Your task to perform on an android device: Clear all items from cart on walmart.com. Search for "acer nitro" on walmart.com, select the first entry, add it to the cart, then select checkout. Image 0: 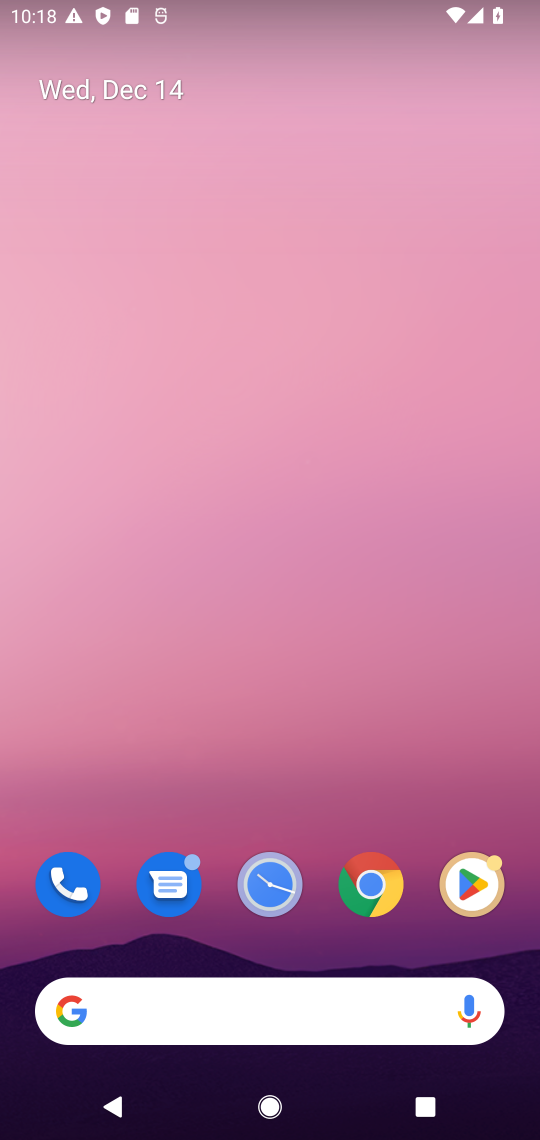
Step 0: click (387, 881)
Your task to perform on an android device: Clear all items from cart on walmart.com. Search for "acer nitro" on walmart.com, select the first entry, add it to the cart, then select checkout. Image 1: 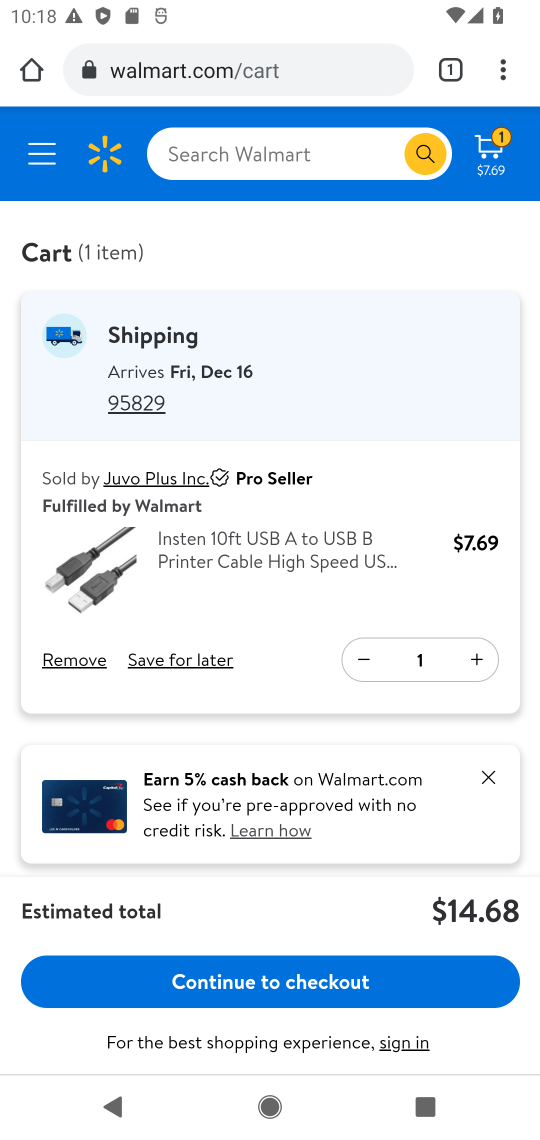
Step 1: click (330, 149)
Your task to perform on an android device: Clear all items from cart on walmart.com. Search for "acer nitro" on walmart.com, select the first entry, add it to the cart, then select checkout. Image 2: 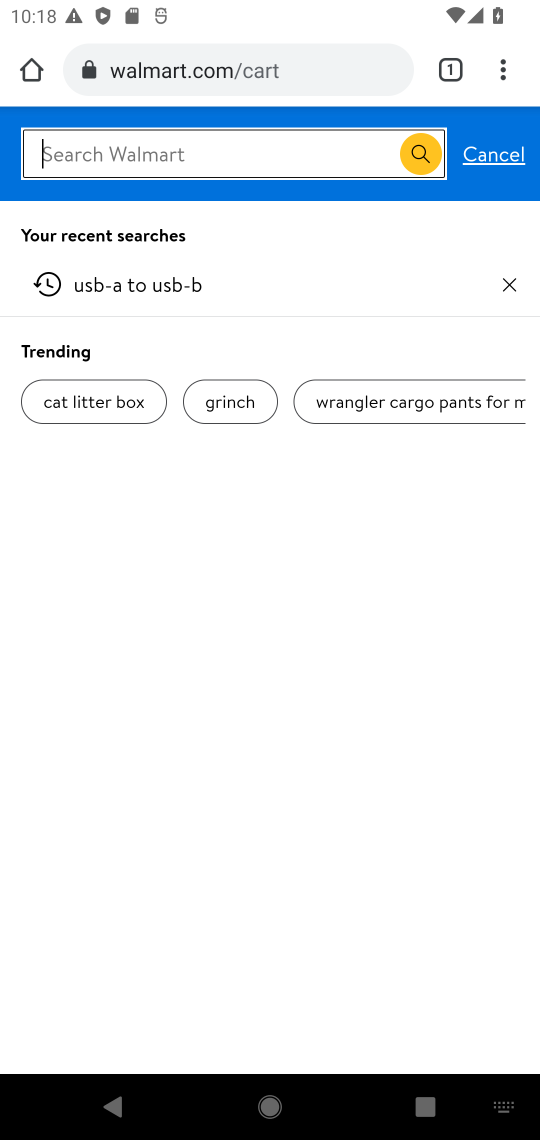
Step 2: press enter
Your task to perform on an android device: Clear all items from cart on walmart.com. Search for "acer nitro" on walmart.com, select the first entry, add it to the cart, then select checkout. Image 3: 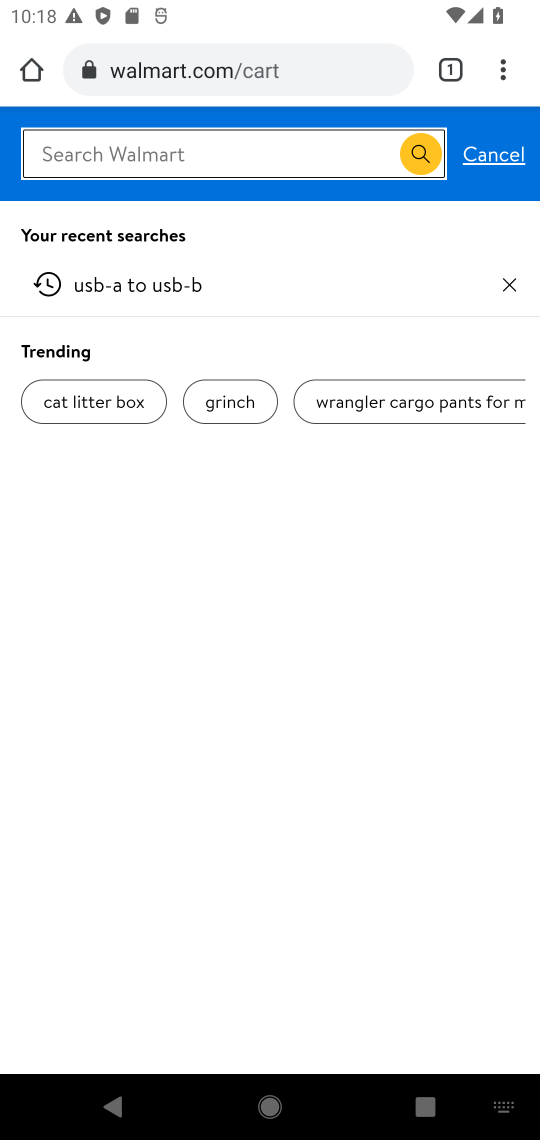
Step 3: type "acer nitro"
Your task to perform on an android device: Clear all items from cart on walmart.com. Search for "acer nitro" on walmart.com, select the first entry, add it to the cart, then select checkout. Image 4: 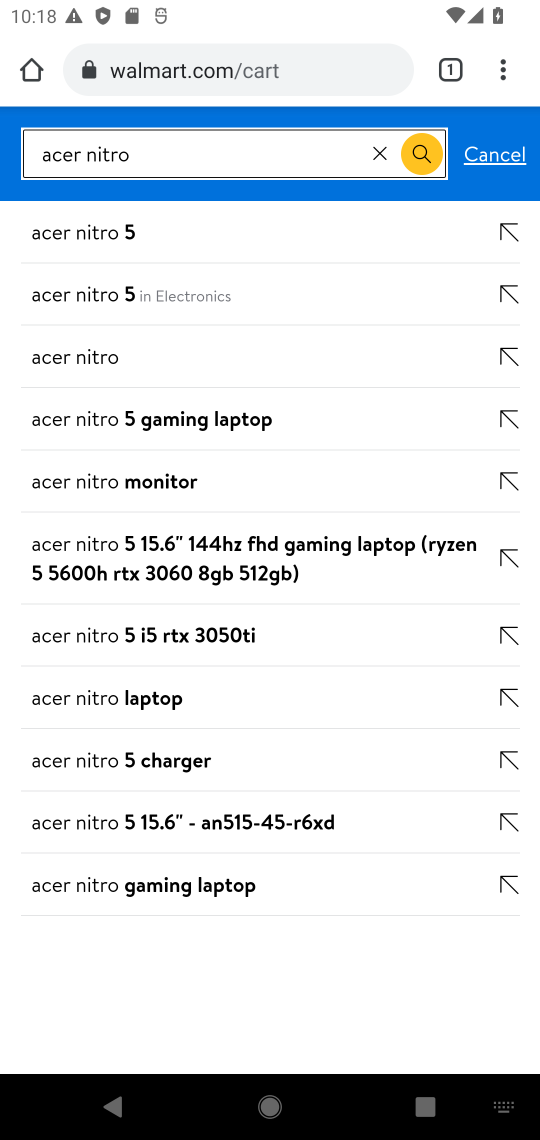
Step 4: click (94, 354)
Your task to perform on an android device: Clear all items from cart on walmart.com. Search for "acer nitro" on walmart.com, select the first entry, add it to the cart, then select checkout. Image 5: 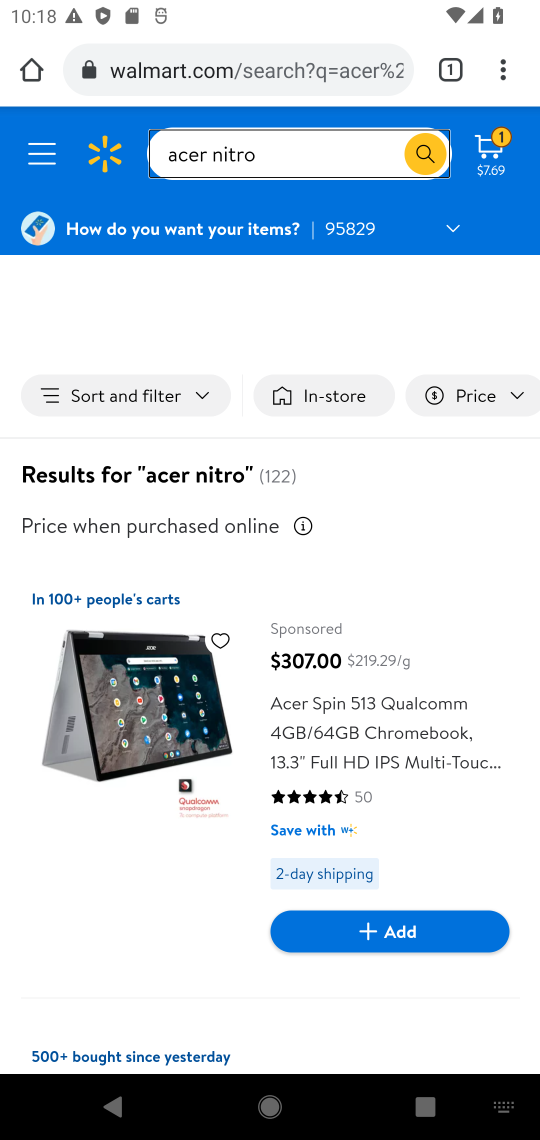
Step 5: drag from (404, 784) to (284, 328)
Your task to perform on an android device: Clear all items from cart on walmart.com. Search for "acer nitro" on walmart.com, select the first entry, add it to the cart, then select checkout. Image 6: 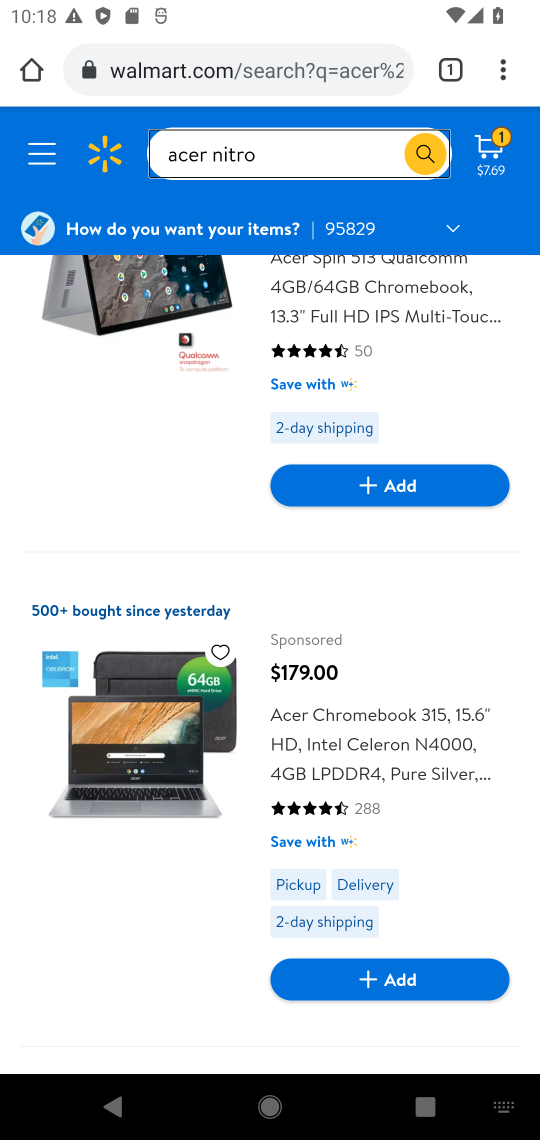
Step 6: drag from (146, 816) to (33, 365)
Your task to perform on an android device: Clear all items from cart on walmart.com. Search for "acer nitro" on walmart.com, select the first entry, add it to the cart, then select checkout. Image 7: 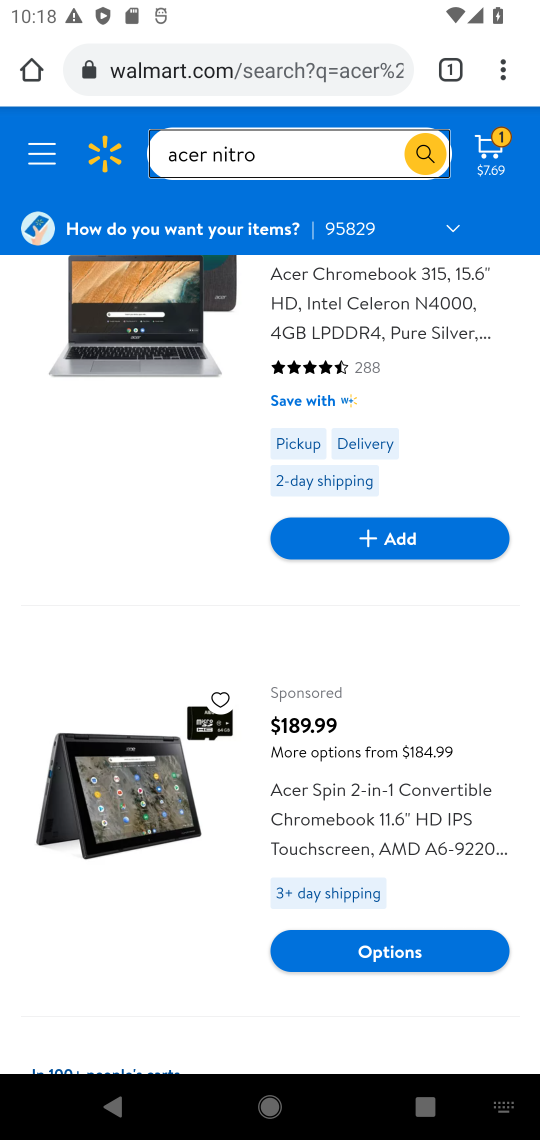
Step 7: drag from (144, 880) to (101, 339)
Your task to perform on an android device: Clear all items from cart on walmart.com. Search for "acer nitro" on walmart.com, select the first entry, add it to the cart, then select checkout. Image 8: 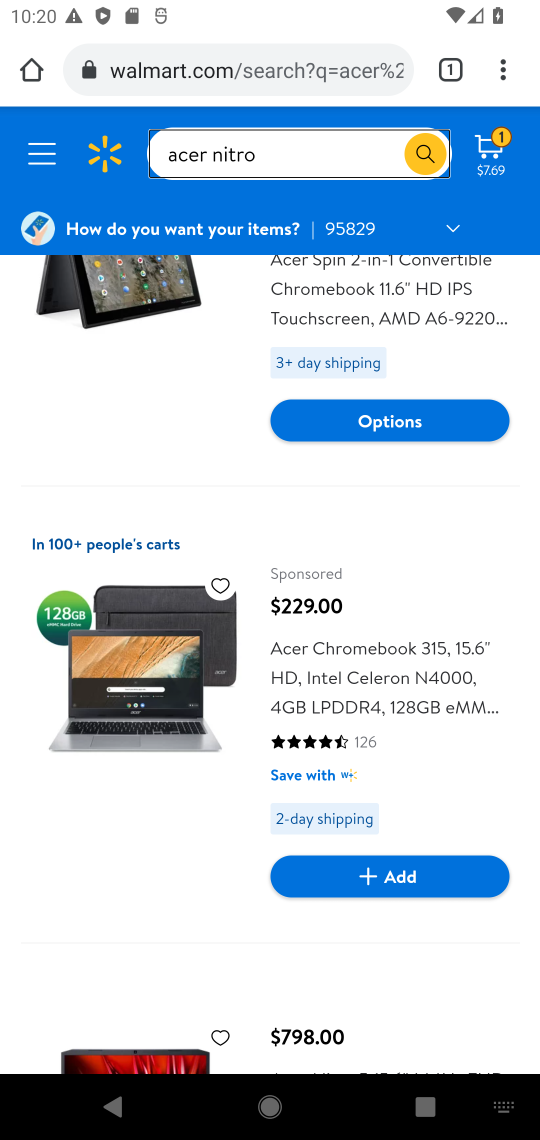
Step 8: press enter
Your task to perform on an android device: Clear all items from cart on walmart.com. Search for "acer nitro" on walmart.com, select the first entry, add it to the cart, then select checkout. Image 9: 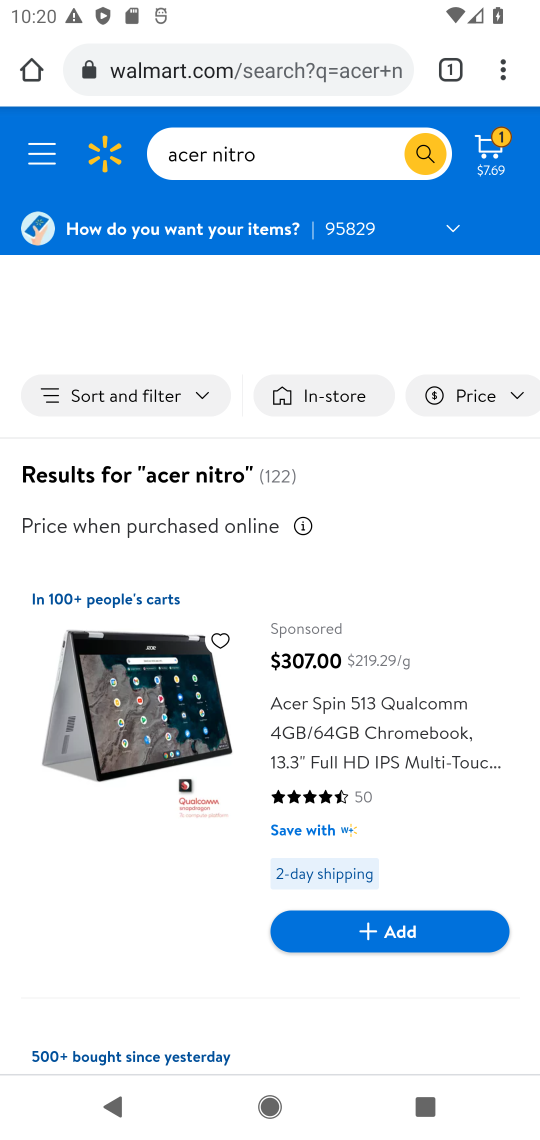
Step 9: drag from (441, 648) to (475, 137)
Your task to perform on an android device: Clear all items from cart on walmart.com. Search for "acer nitro" on walmart.com, select the first entry, add it to the cart, then select checkout. Image 10: 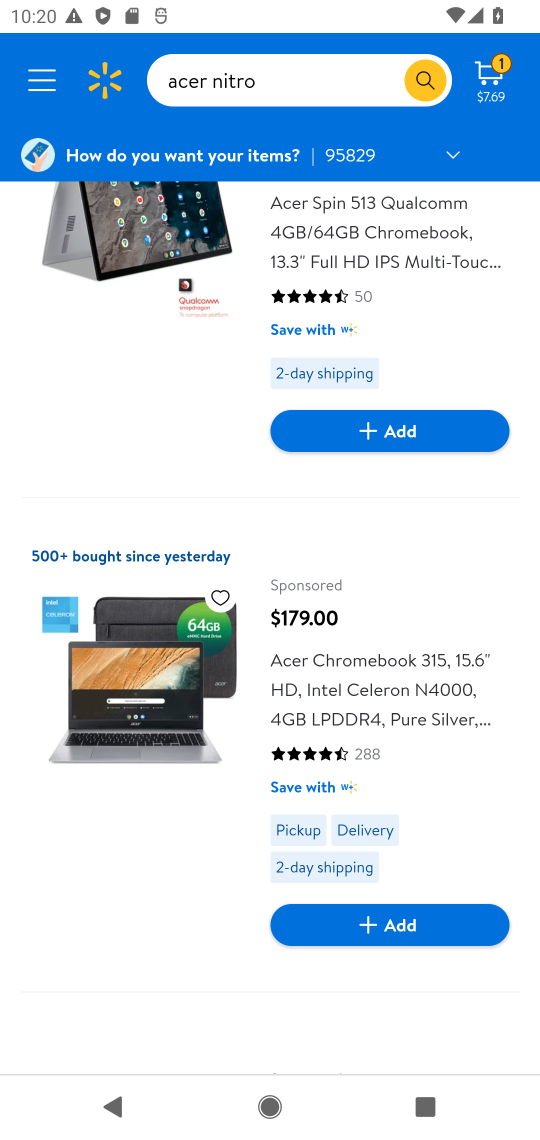
Step 10: drag from (451, 811) to (440, 250)
Your task to perform on an android device: Clear all items from cart on walmart.com. Search for "acer nitro" on walmart.com, select the first entry, add it to the cart, then select checkout. Image 11: 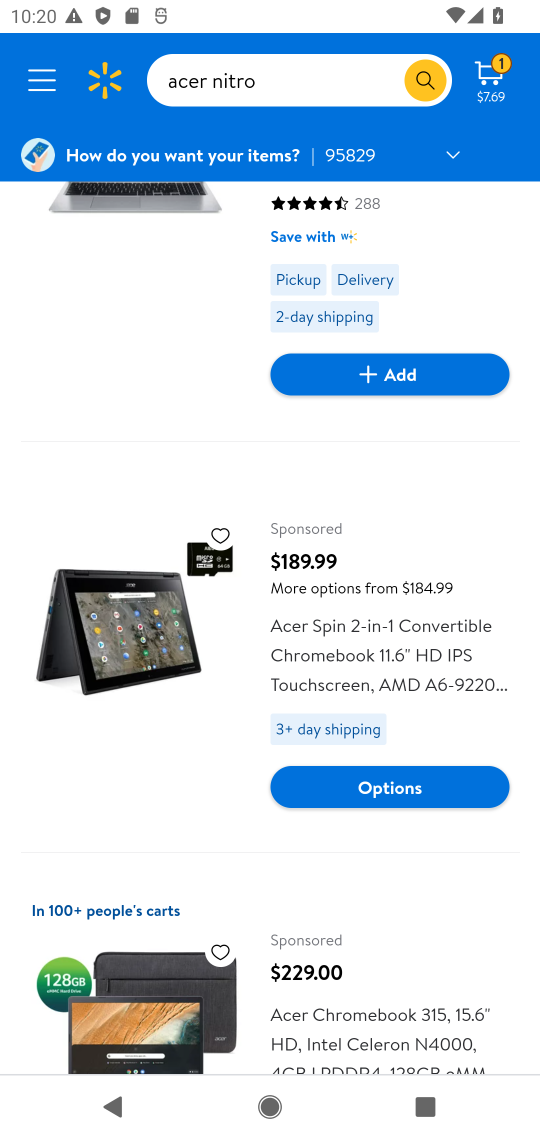
Step 11: drag from (425, 882) to (419, 567)
Your task to perform on an android device: Clear all items from cart on walmart.com. Search for "acer nitro" on walmart.com, select the first entry, add it to the cart, then select checkout. Image 12: 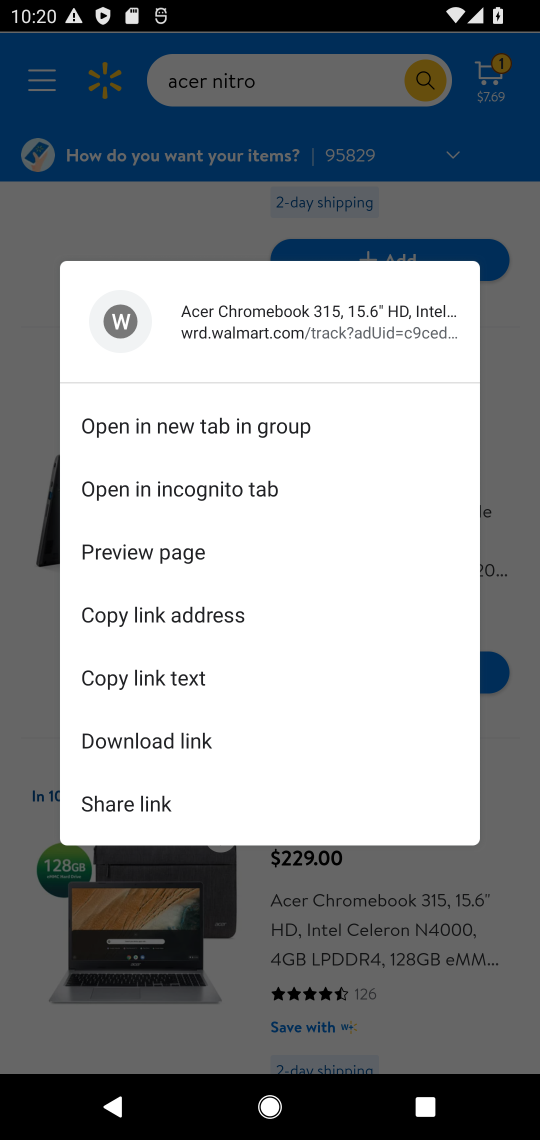
Step 12: click (507, 823)
Your task to perform on an android device: Clear all items from cart on walmart.com. Search for "acer nitro" on walmart.com, select the first entry, add it to the cart, then select checkout. Image 13: 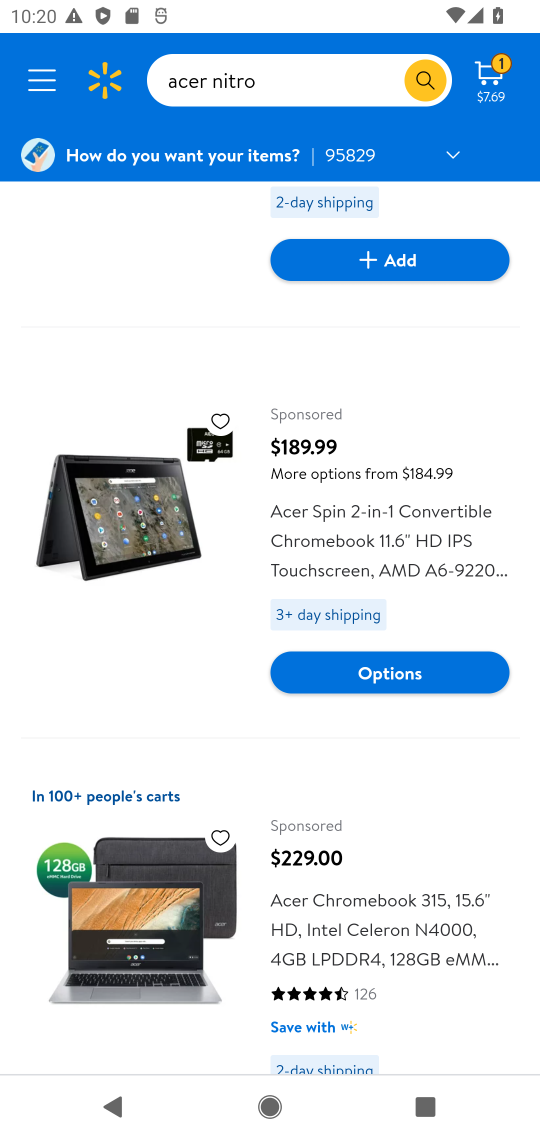
Step 13: drag from (425, 840) to (410, 440)
Your task to perform on an android device: Clear all items from cart on walmart.com. Search for "acer nitro" on walmart.com, select the first entry, add it to the cart, then select checkout. Image 14: 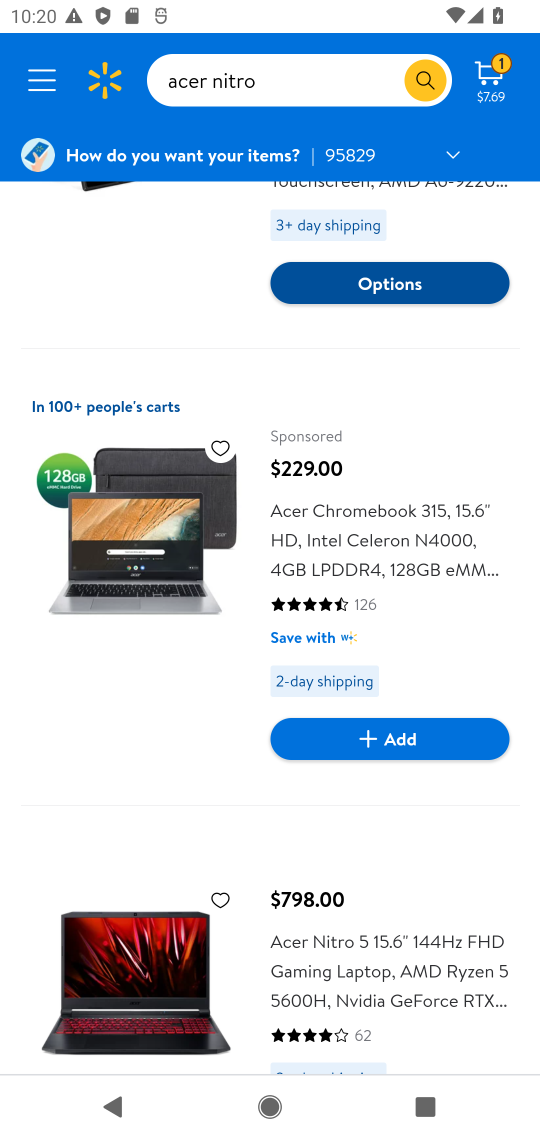
Step 14: drag from (412, 897) to (393, 533)
Your task to perform on an android device: Clear all items from cart on walmart.com. Search for "acer nitro" on walmart.com, select the first entry, add it to the cart, then select checkout. Image 15: 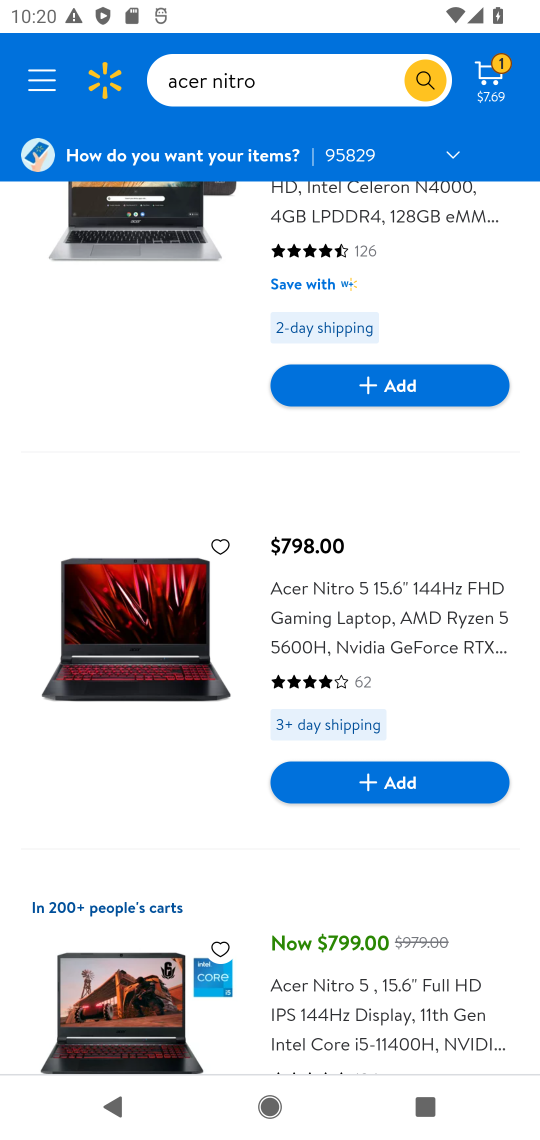
Step 15: click (143, 648)
Your task to perform on an android device: Clear all items from cart on walmart.com. Search for "acer nitro" on walmart.com, select the first entry, add it to the cart, then select checkout. Image 16: 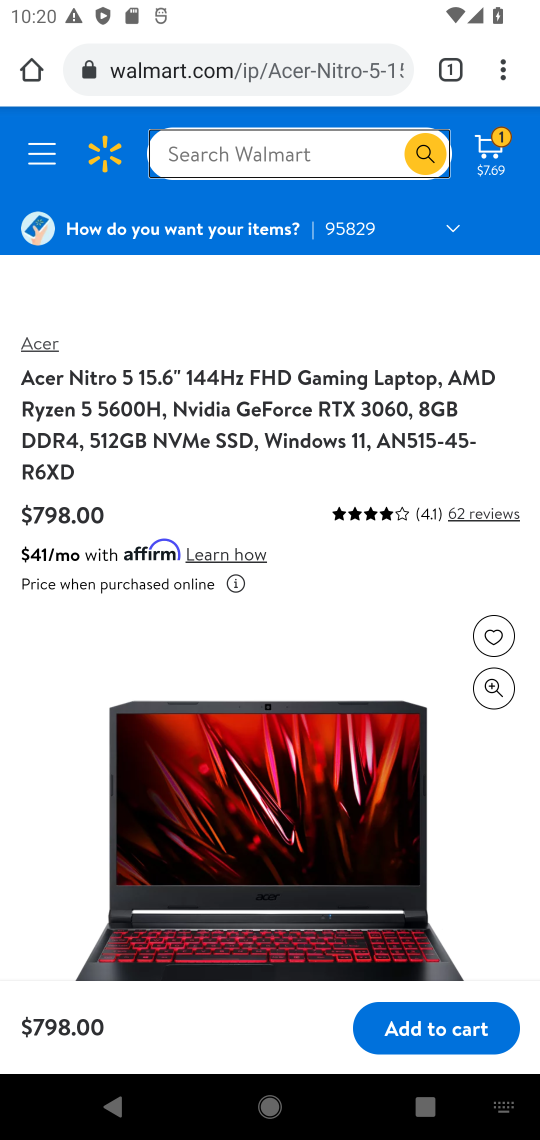
Step 16: drag from (480, 852) to (419, 599)
Your task to perform on an android device: Clear all items from cart on walmart.com. Search for "acer nitro" on walmart.com, select the first entry, add it to the cart, then select checkout. Image 17: 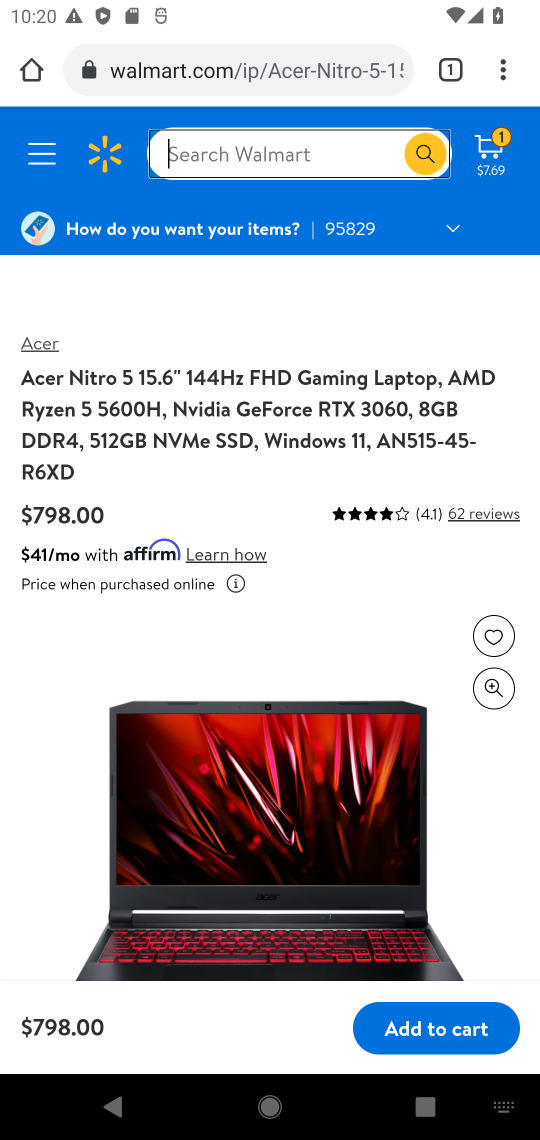
Step 17: click (433, 1036)
Your task to perform on an android device: Clear all items from cart on walmart.com. Search for "acer nitro" on walmart.com, select the first entry, add it to the cart, then select checkout. Image 18: 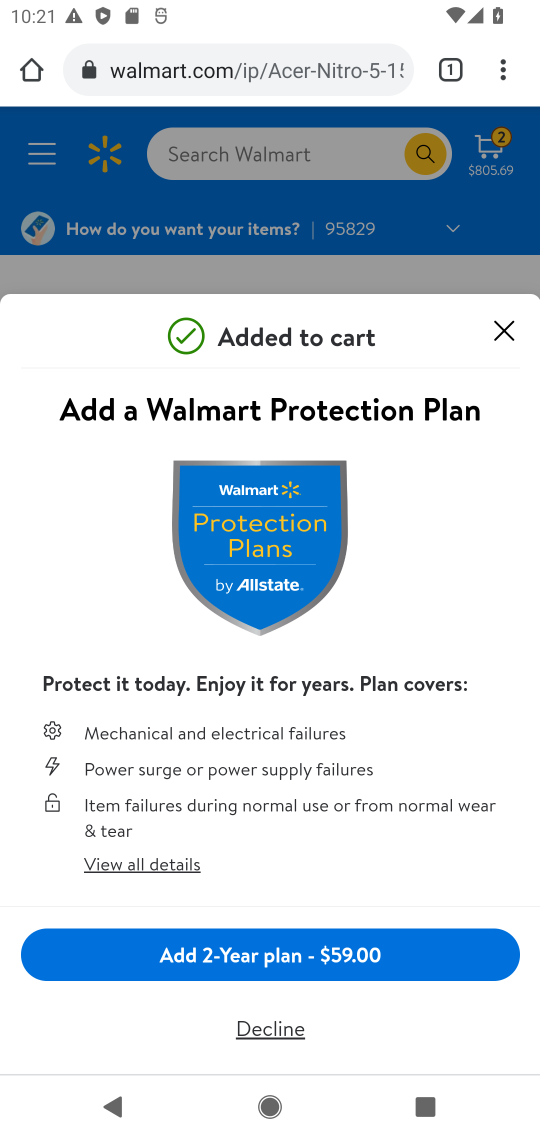
Step 18: click (506, 331)
Your task to perform on an android device: Clear all items from cart on walmart.com. Search for "acer nitro" on walmart.com, select the first entry, add it to the cart, then select checkout. Image 19: 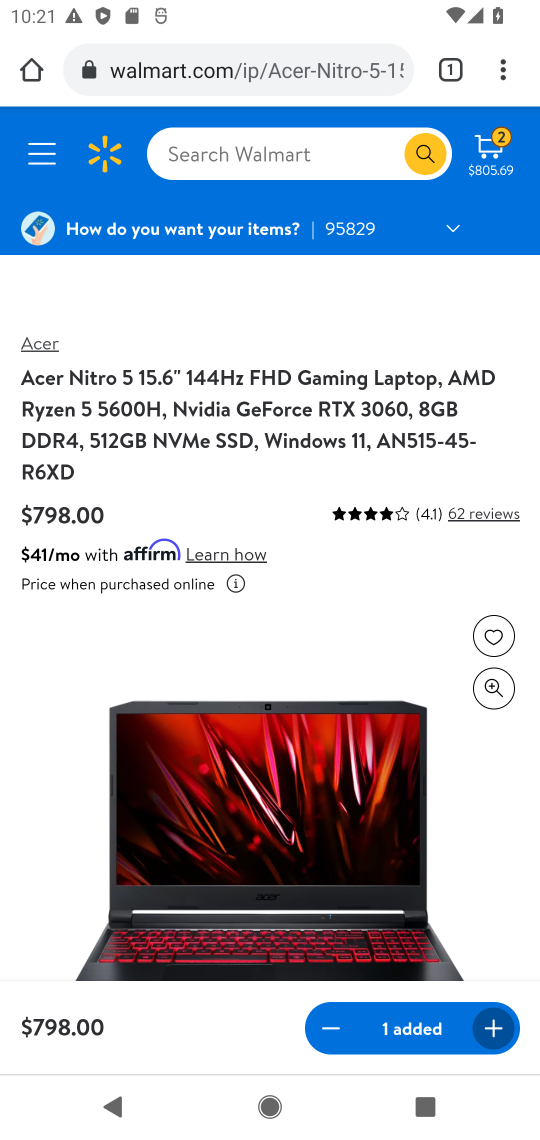
Step 19: click (491, 165)
Your task to perform on an android device: Clear all items from cart on walmart.com. Search for "acer nitro" on walmart.com, select the first entry, add it to the cart, then select checkout. Image 20: 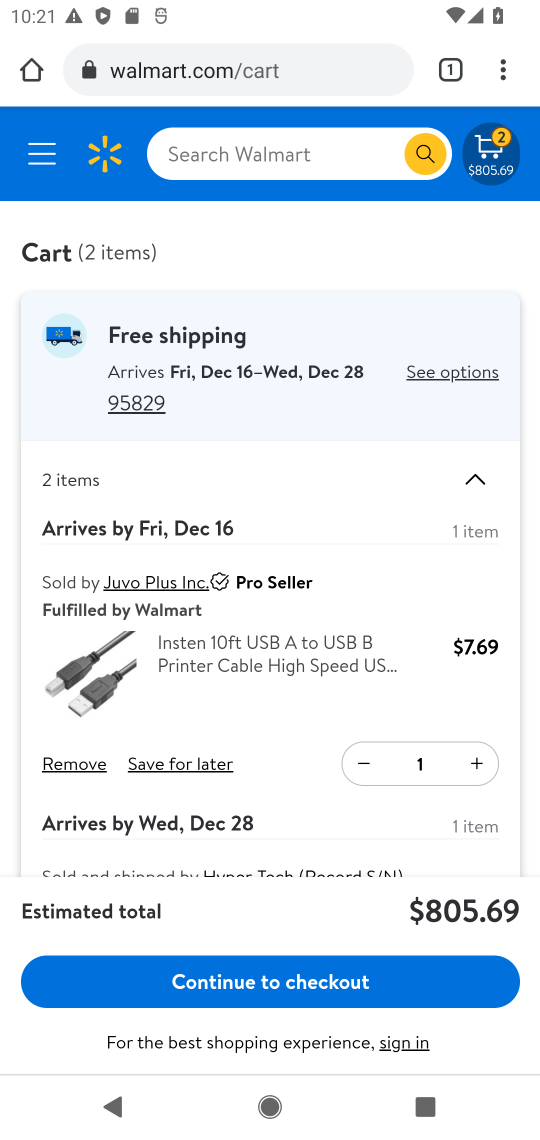
Step 20: click (287, 971)
Your task to perform on an android device: Clear all items from cart on walmart.com. Search for "acer nitro" on walmart.com, select the first entry, add it to the cart, then select checkout. Image 21: 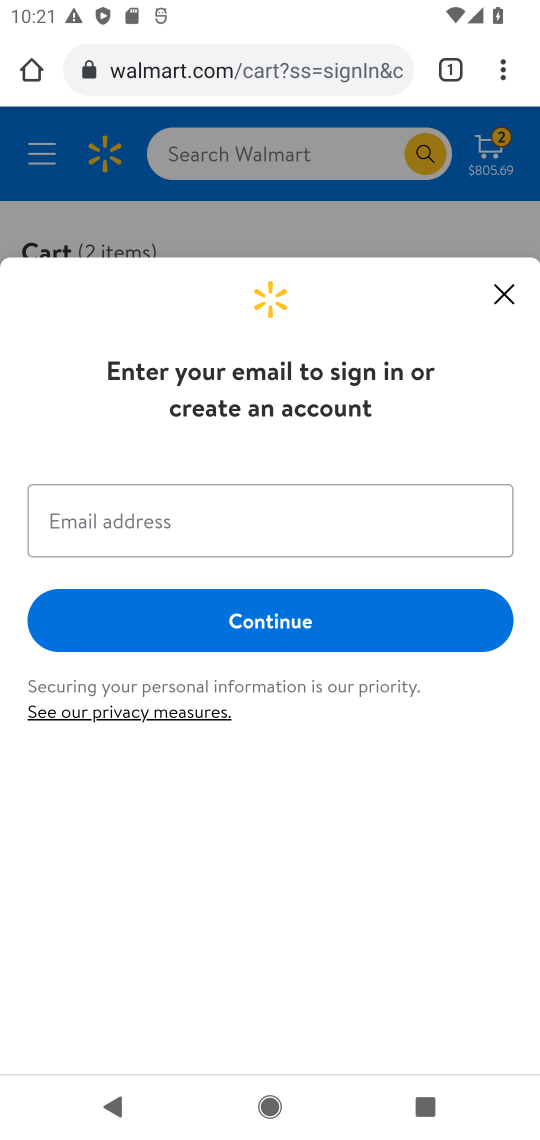
Step 21: task complete